Your task to perform on an android device: install app "Grab" Image 0: 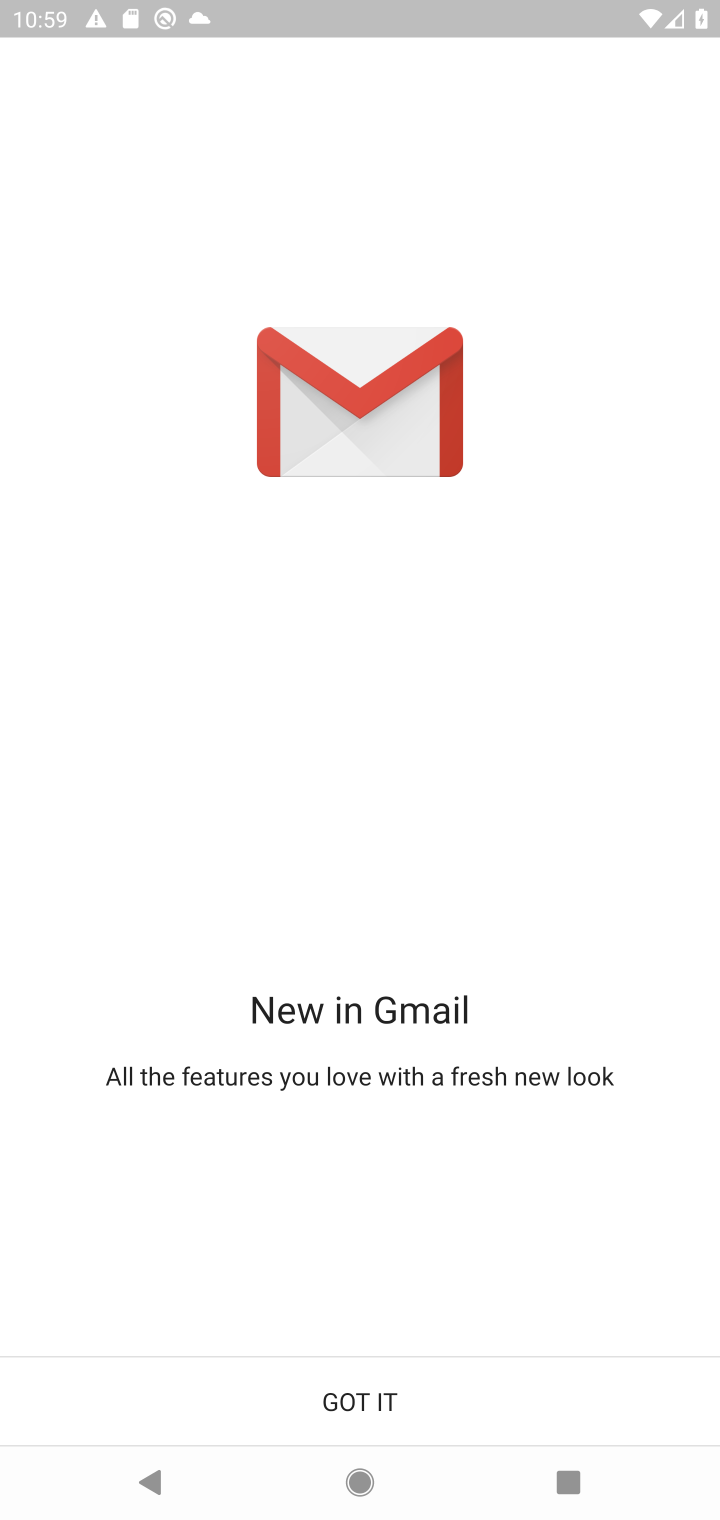
Step 0: press home button
Your task to perform on an android device: install app "Grab" Image 1: 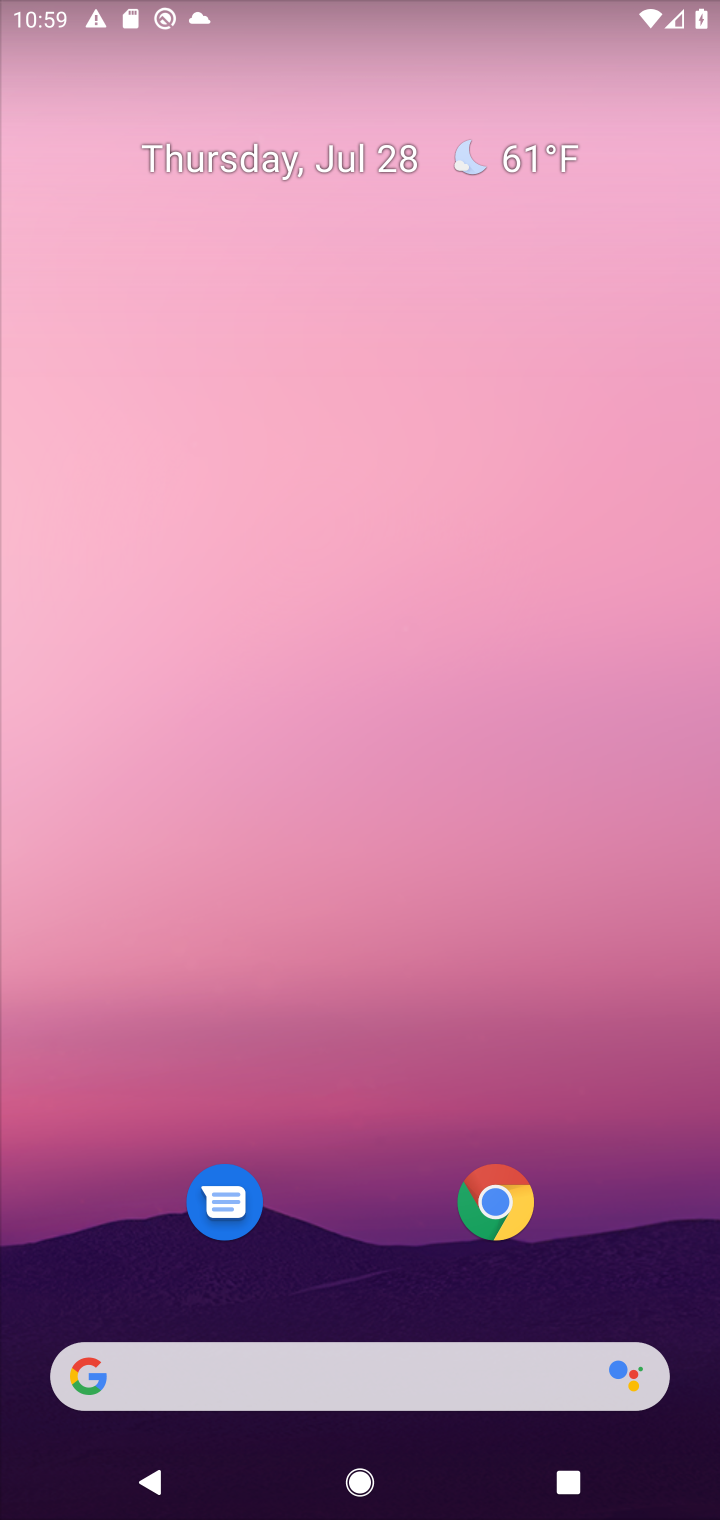
Step 1: click (425, 1359)
Your task to perform on an android device: install app "Grab" Image 2: 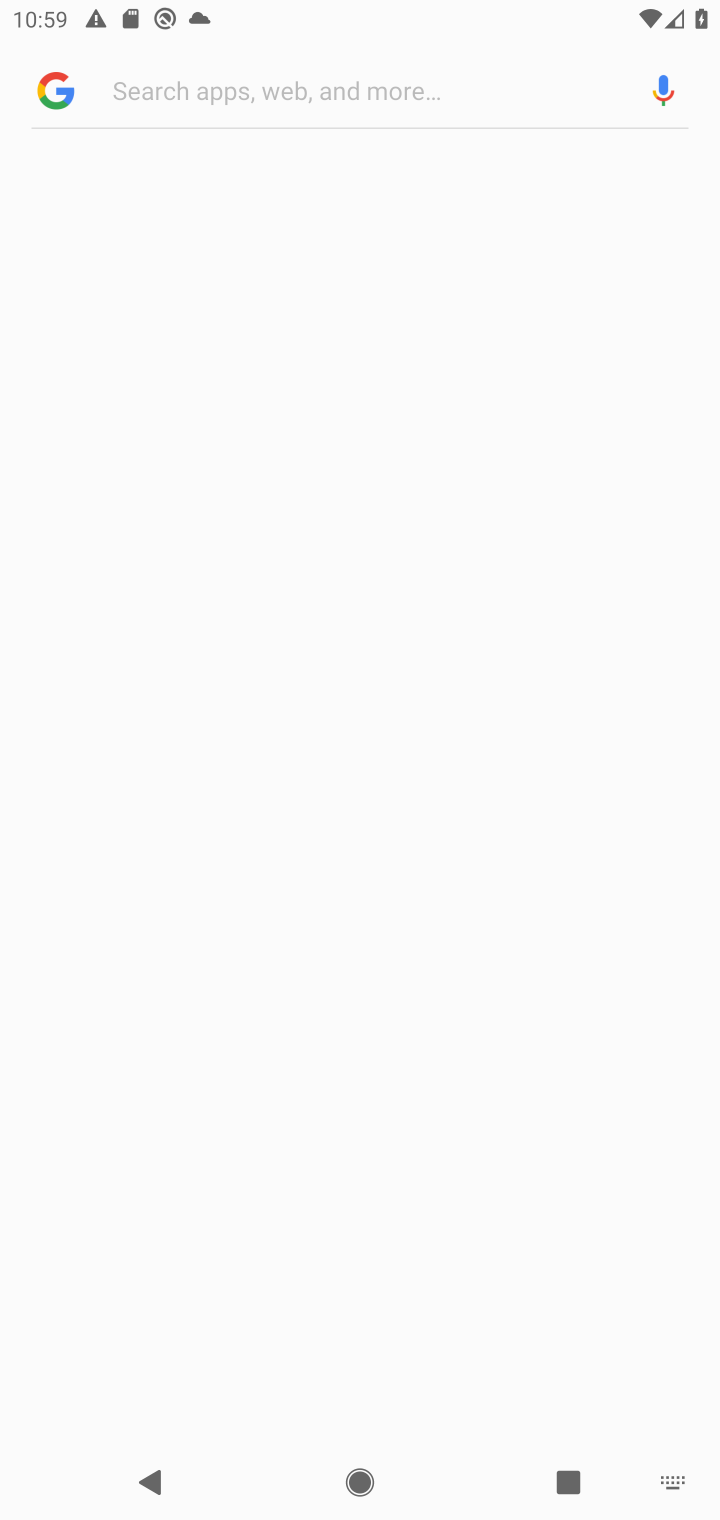
Step 2: type "grab"
Your task to perform on an android device: install app "Grab" Image 3: 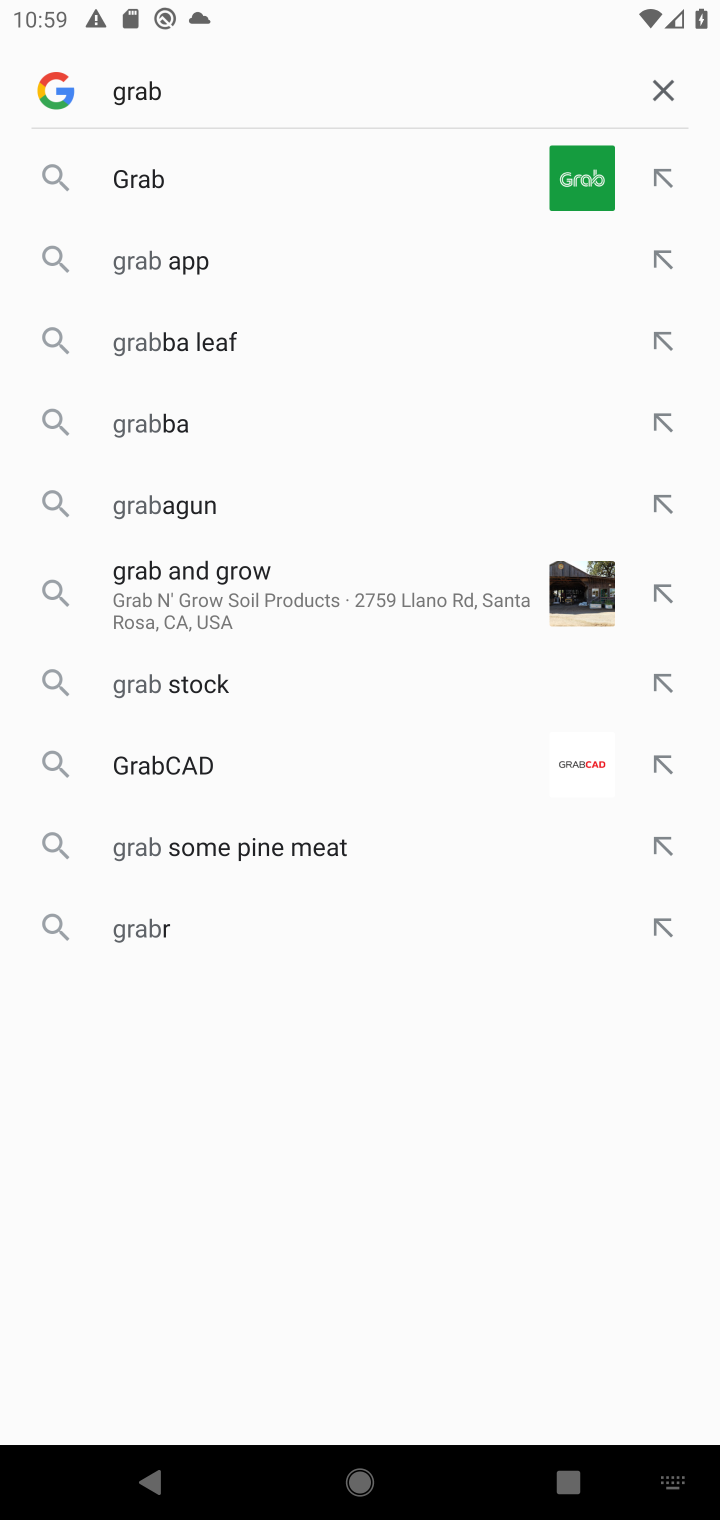
Step 3: click (666, 187)
Your task to perform on an android device: install app "Grab" Image 4: 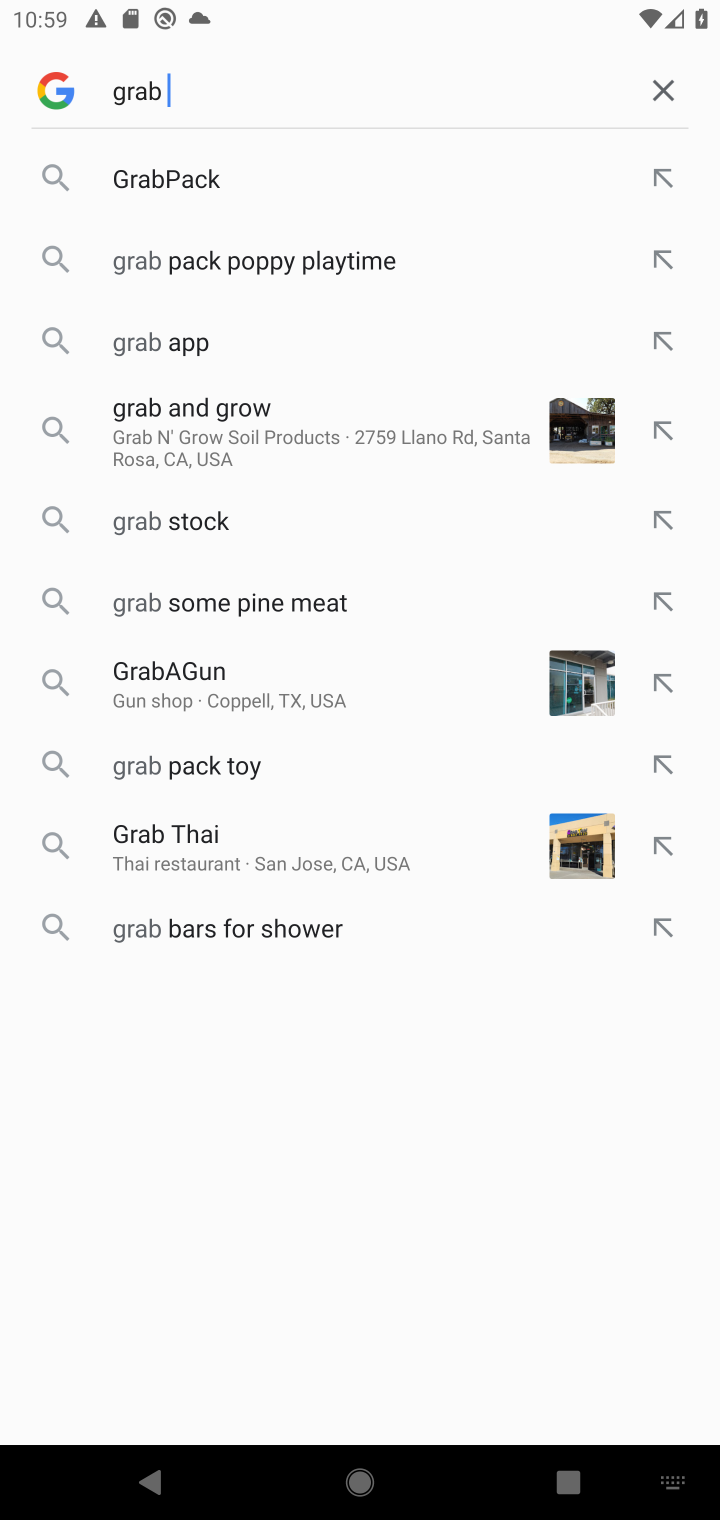
Step 4: task complete